Your task to perform on an android device: Open sound settings Image 0: 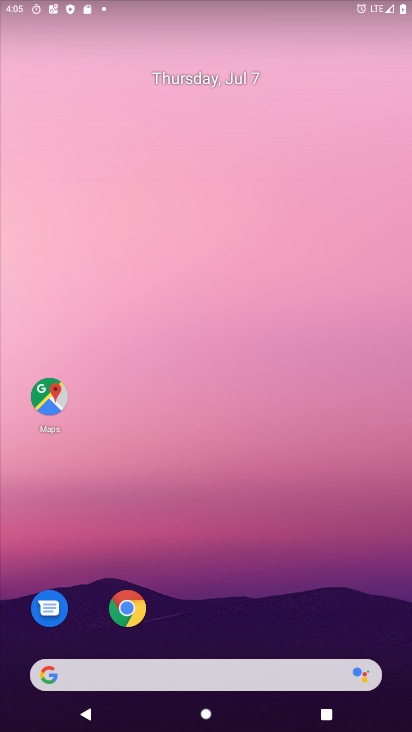
Step 0: drag from (239, 721) to (238, 57)
Your task to perform on an android device: Open sound settings Image 1: 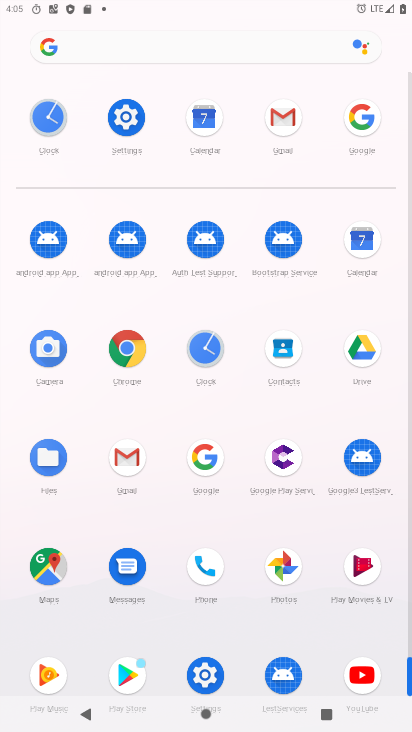
Step 1: click (129, 125)
Your task to perform on an android device: Open sound settings Image 2: 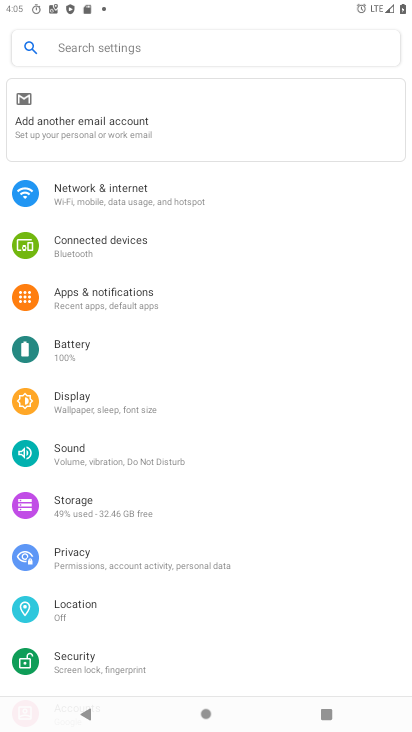
Step 2: click (74, 453)
Your task to perform on an android device: Open sound settings Image 3: 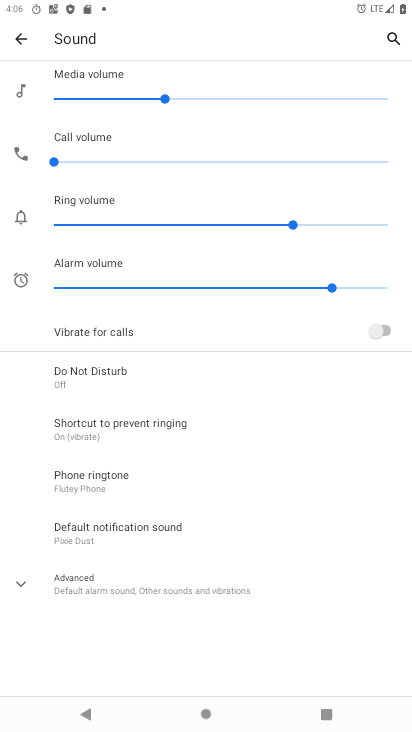
Step 3: task complete